Your task to perform on an android device: Open notification settings Image 0: 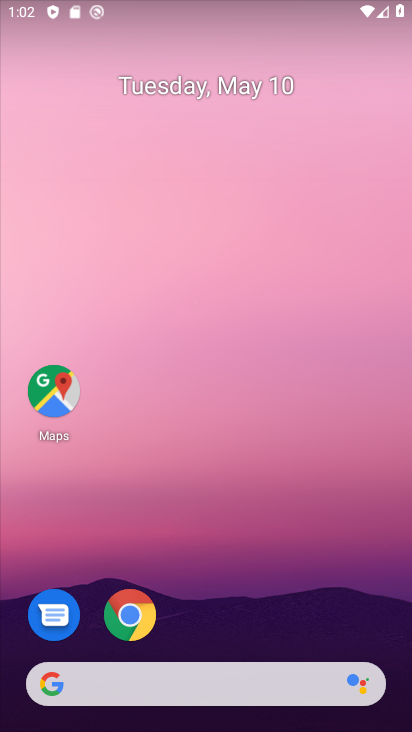
Step 0: drag from (237, 611) to (262, 72)
Your task to perform on an android device: Open notification settings Image 1: 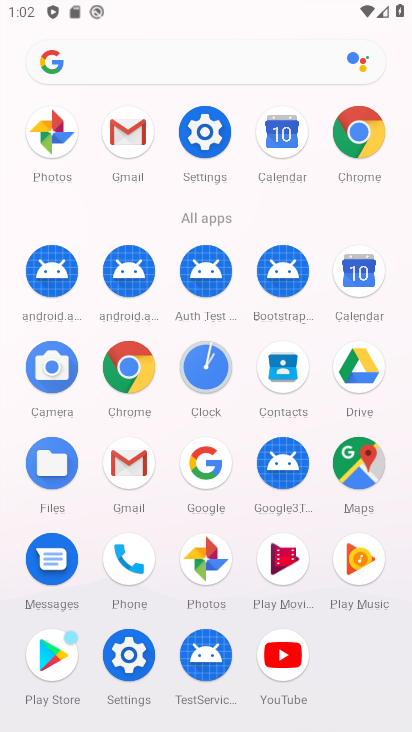
Step 1: click (135, 660)
Your task to perform on an android device: Open notification settings Image 2: 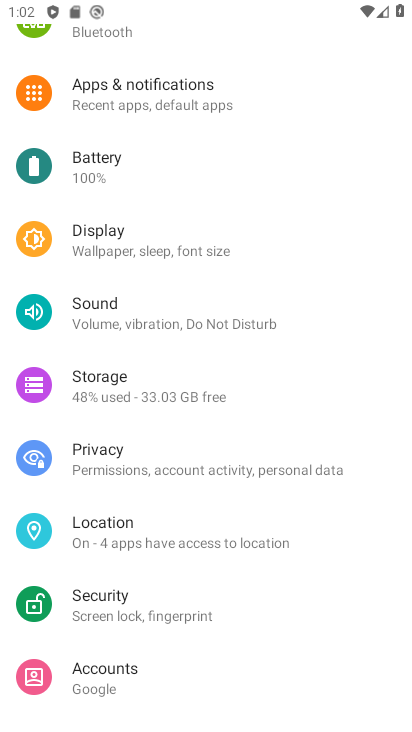
Step 2: click (215, 103)
Your task to perform on an android device: Open notification settings Image 3: 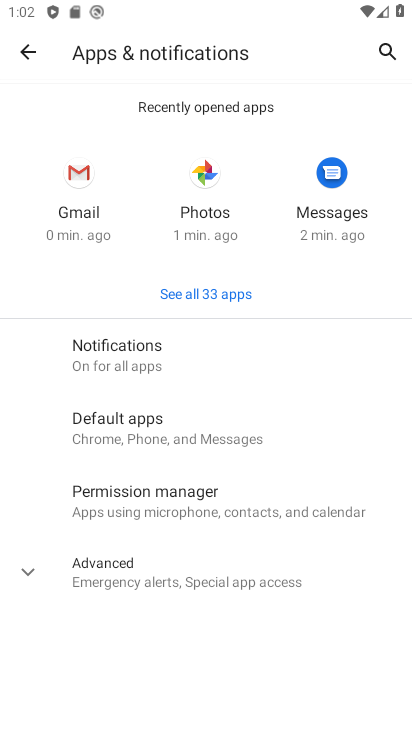
Step 3: click (148, 359)
Your task to perform on an android device: Open notification settings Image 4: 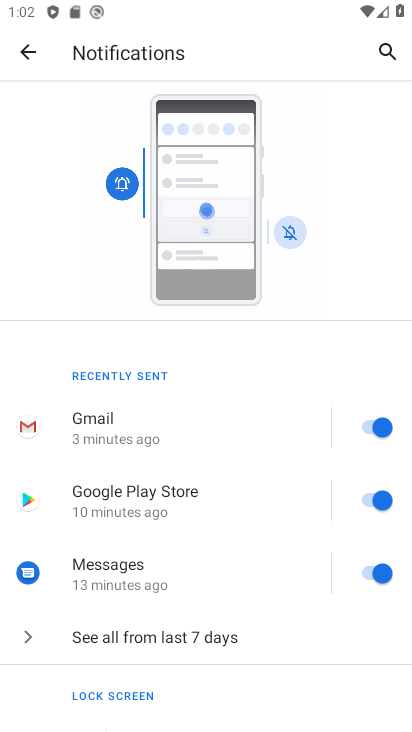
Step 4: task complete